Your task to perform on an android device: turn on location history Image 0: 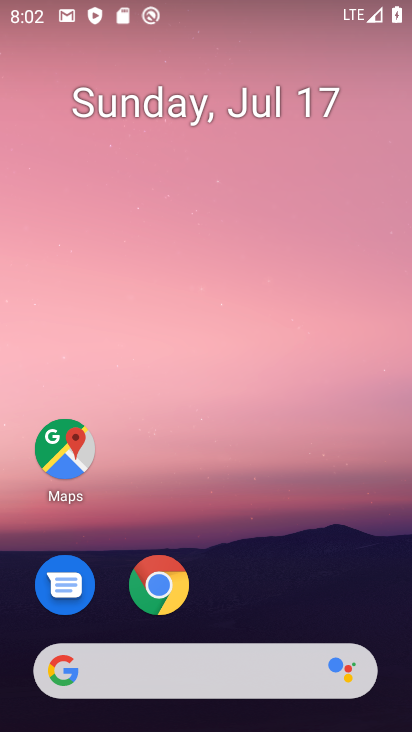
Step 0: drag from (185, 678) to (266, 17)
Your task to perform on an android device: turn on location history Image 1: 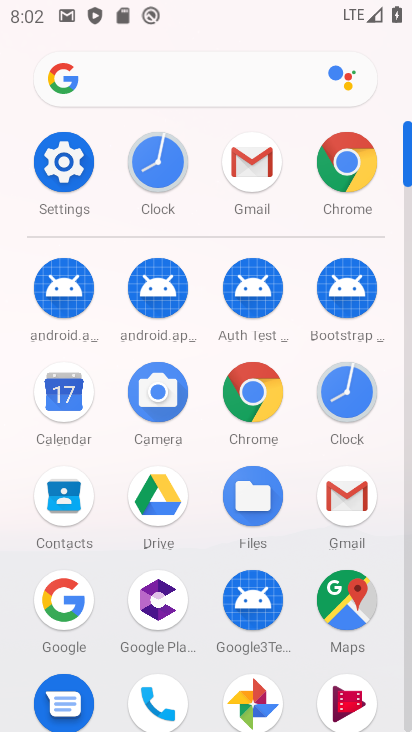
Step 1: click (61, 172)
Your task to perform on an android device: turn on location history Image 2: 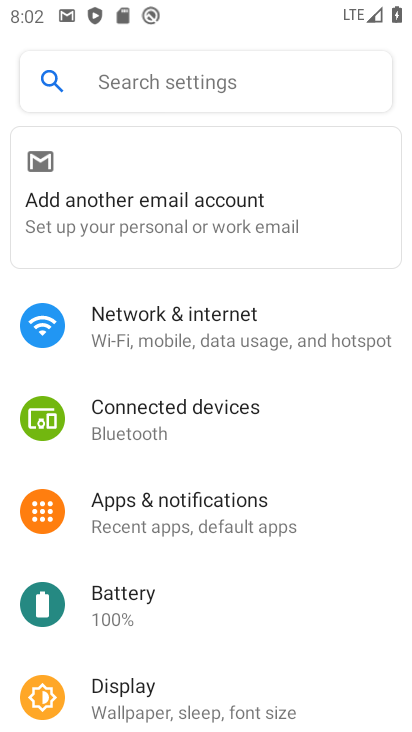
Step 2: drag from (207, 548) to (248, 165)
Your task to perform on an android device: turn on location history Image 3: 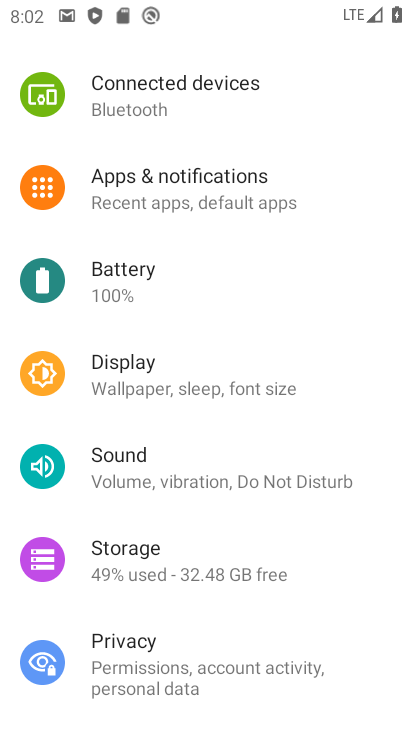
Step 3: drag from (220, 606) to (301, 159)
Your task to perform on an android device: turn on location history Image 4: 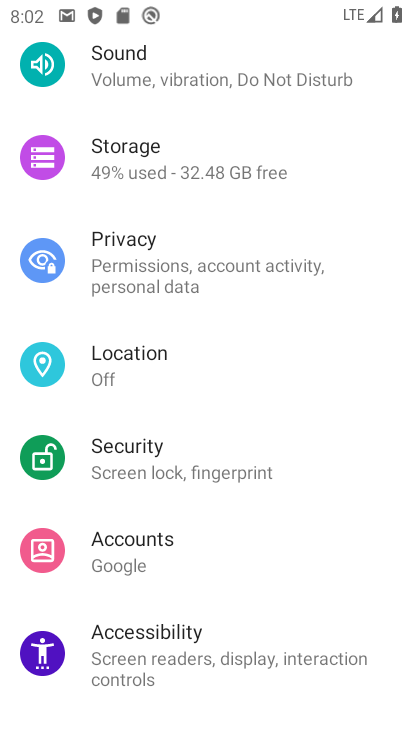
Step 4: click (151, 468)
Your task to perform on an android device: turn on location history Image 5: 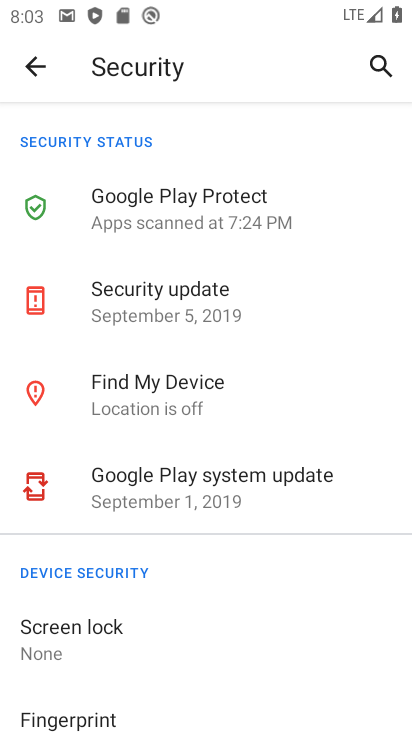
Step 5: click (29, 62)
Your task to perform on an android device: turn on location history Image 6: 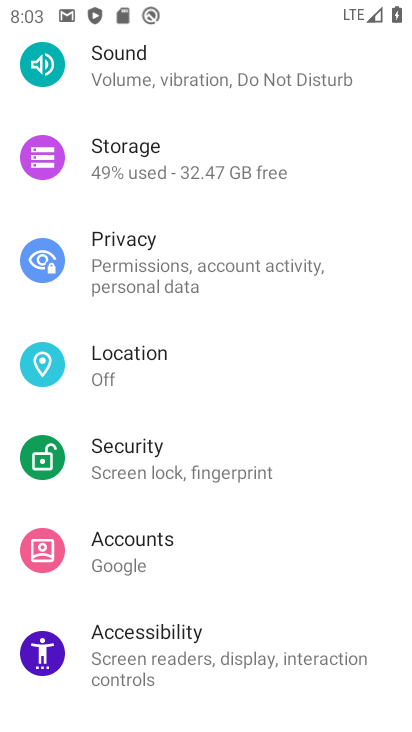
Step 6: click (164, 354)
Your task to perform on an android device: turn on location history Image 7: 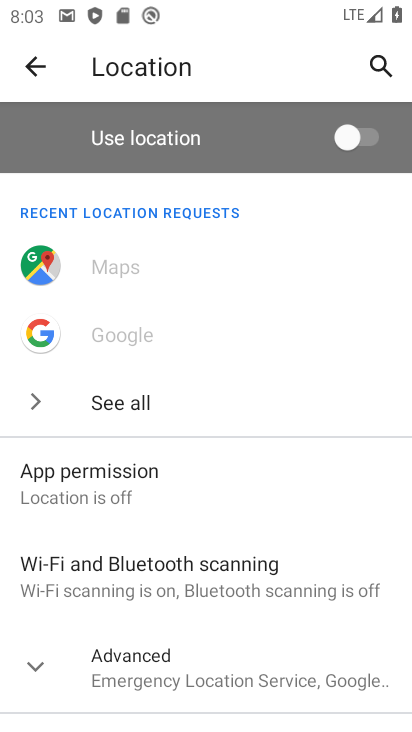
Step 7: click (126, 674)
Your task to perform on an android device: turn on location history Image 8: 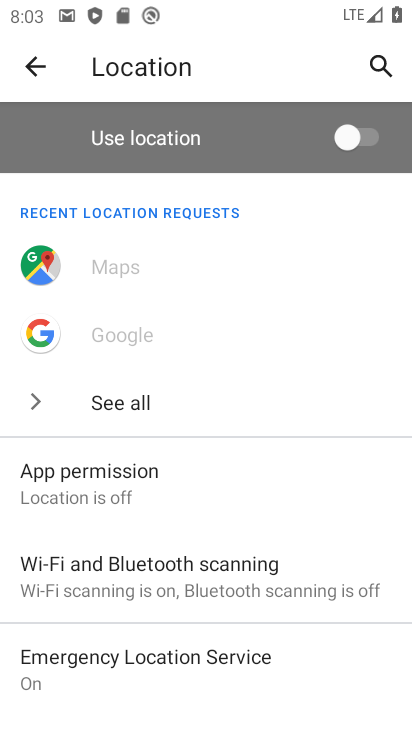
Step 8: drag from (166, 670) to (274, 258)
Your task to perform on an android device: turn on location history Image 9: 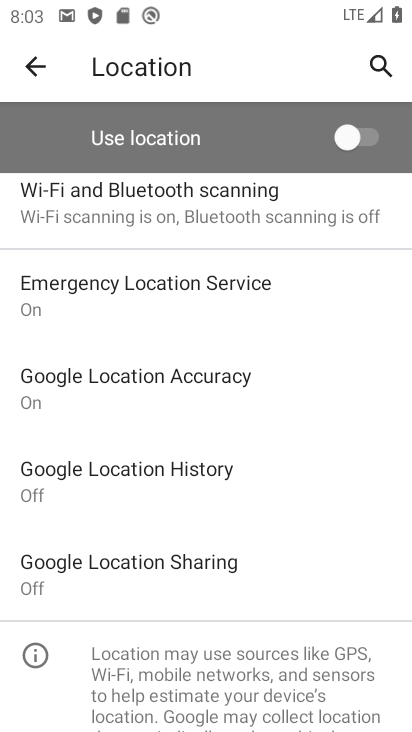
Step 9: click (199, 466)
Your task to perform on an android device: turn on location history Image 10: 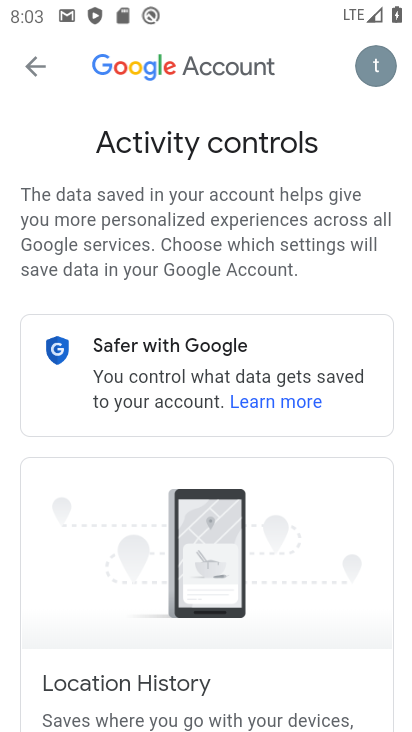
Step 10: drag from (125, 631) to (294, 55)
Your task to perform on an android device: turn on location history Image 11: 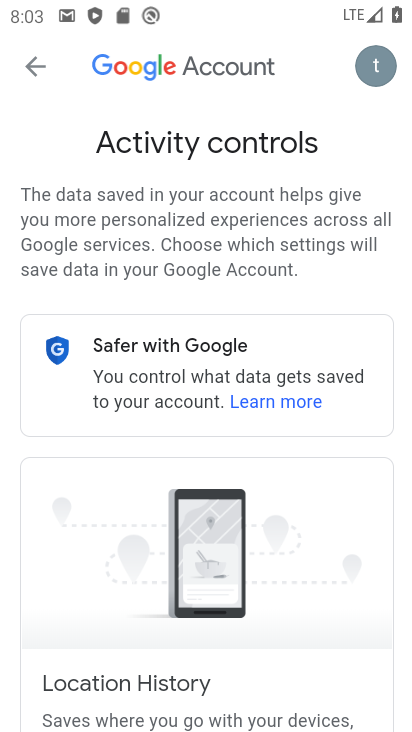
Step 11: drag from (294, 620) to (375, 89)
Your task to perform on an android device: turn on location history Image 12: 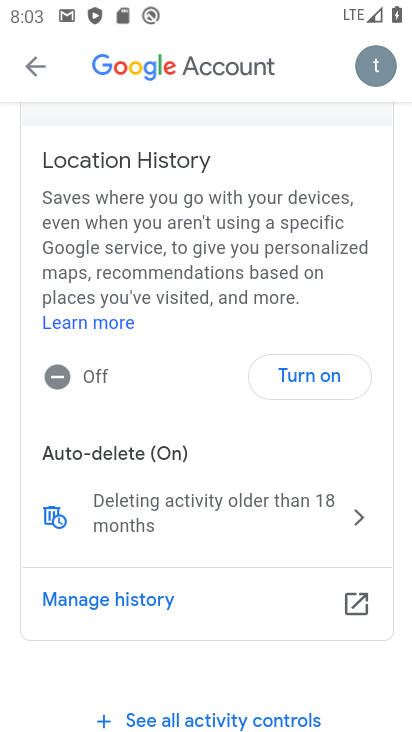
Step 12: click (320, 380)
Your task to perform on an android device: turn on location history Image 13: 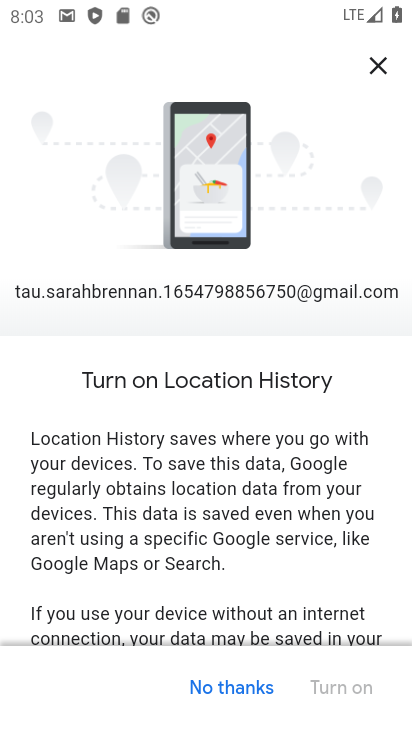
Step 13: drag from (233, 585) to (301, 25)
Your task to perform on an android device: turn on location history Image 14: 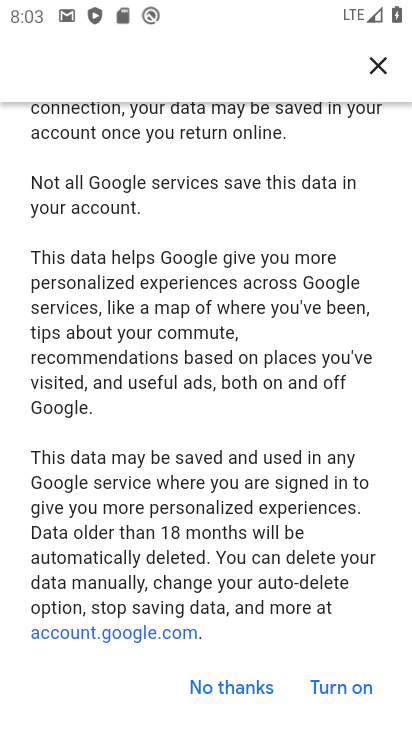
Step 14: click (342, 685)
Your task to perform on an android device: turn on location history Image 15: 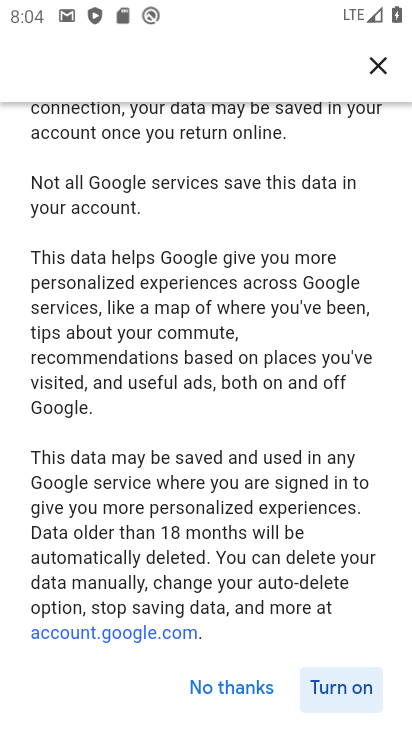
Step 15: click (342, 685)
Your task to perform on an android device: turn on location history Image 16: 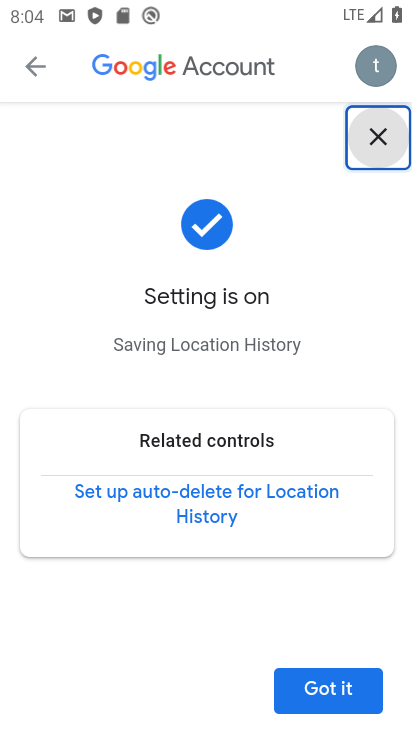
Step 16: click (355, 685)
Your task to perform on an android device: turn on location history Image 17: 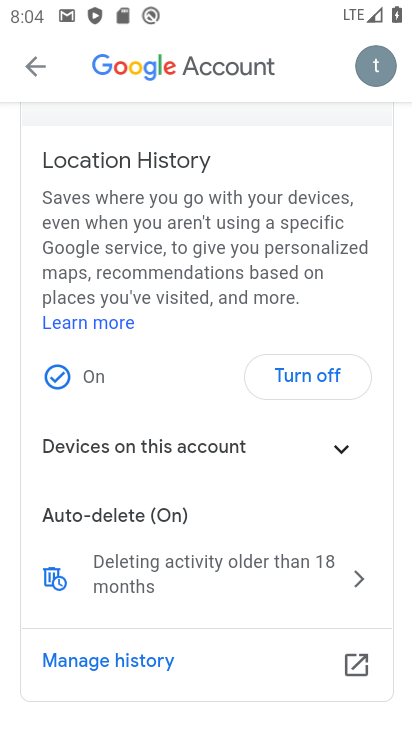
Step 17: task complete